Your task to perform on an android device: Go to settings Image 0: 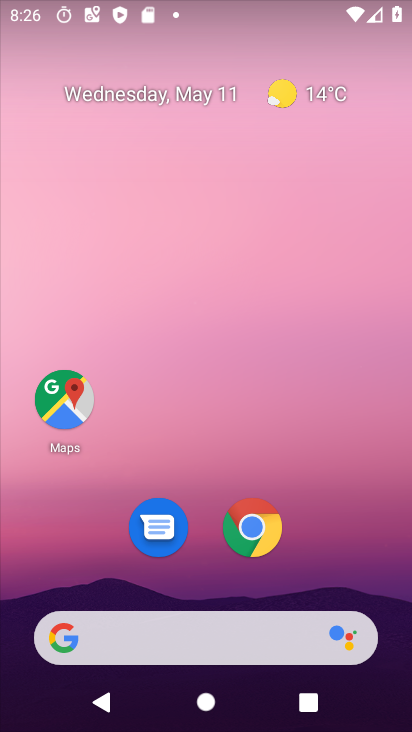
Step 0: drag from (294, 588) to (291, 154)
Your task to perform on an android device: Go to settings Image 1: 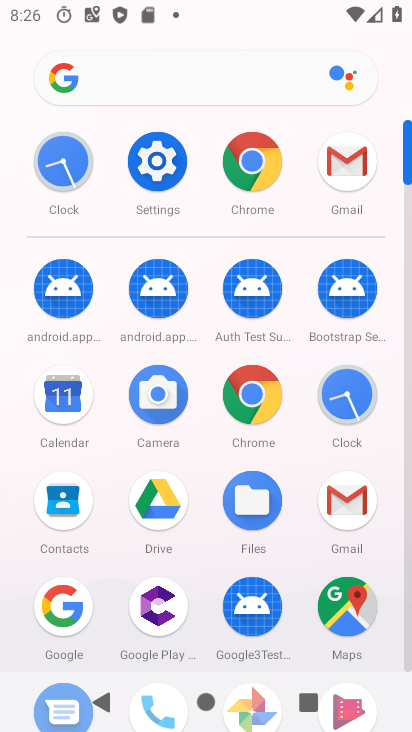
Step 1: click (169, 171)
Your task to perform on an android device: Go to settings Image 2: 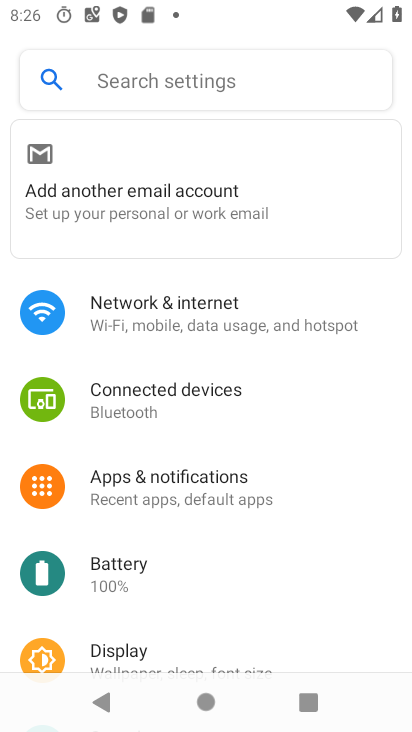
Step 2: task complete